Your task to perform on an android device: see sites visited before in the chrome app Image 0: 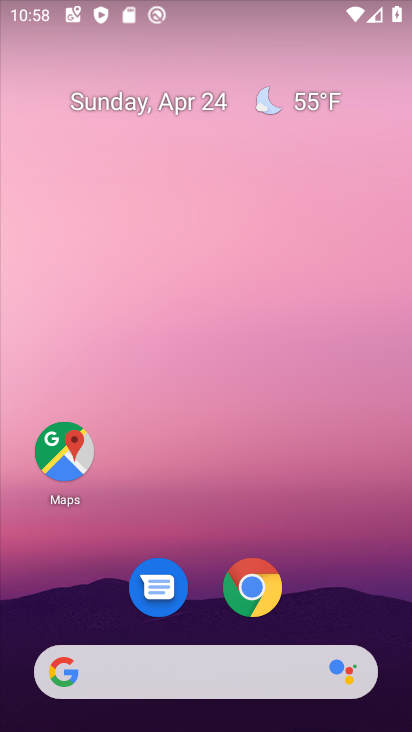
Step 0: click (253, 576)
Your task to perform on an android device: see sites visited before in the chrome app Image 1: 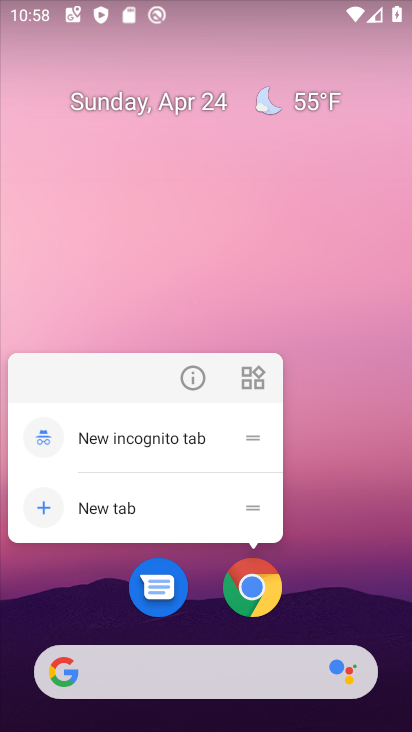
Step 1: drag from (352, 317) to (338, 3)
Your task to perform on an android device: see sites visited before in the chrome app Image 2: 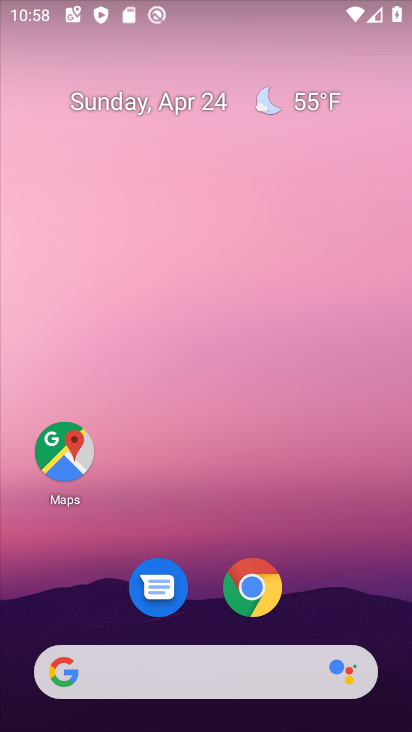
Step 2: drag from (319, 516) to (269, 60)
Your task to perform on an android device: see sites visited before in the chrome app Image 3: 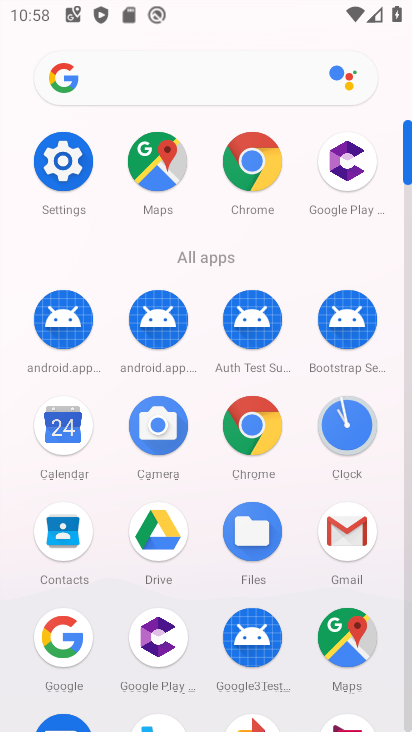
Step 3: click (254, 433)
Your task to perform on an android device: see sites visited before in the chrome app Image 4: 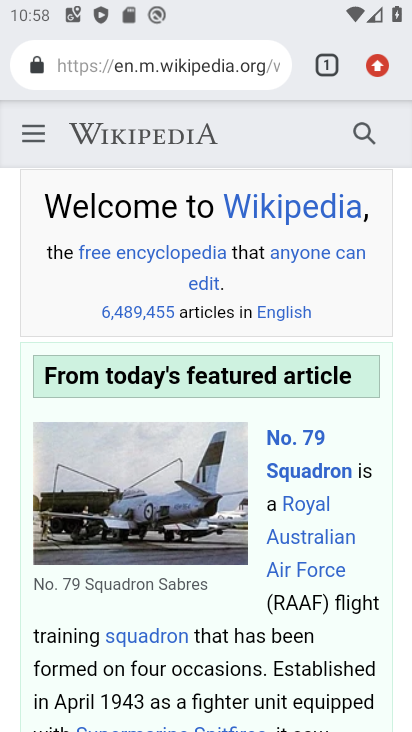
Step 4: task complete